Your task to perform on an android device: Search for razer deathadder on bestbuy, select the first entry, and add it to the cart. Image 0: 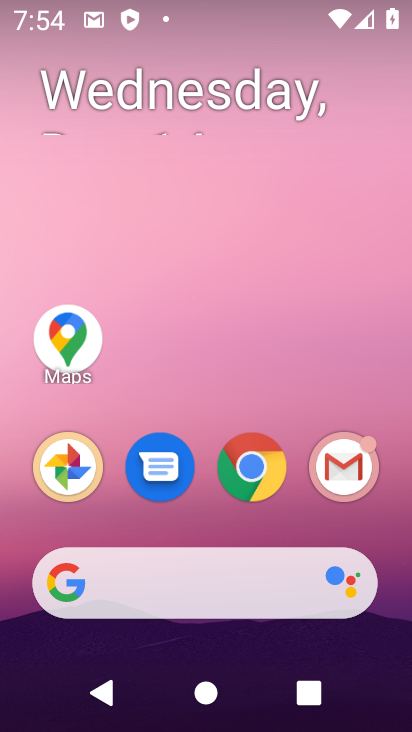
Step 0: click (283, 474)
Your task to perform on an android device: Search for razer deathadder on bestbuy, select the first entry, and add it to the cart. Image 1: 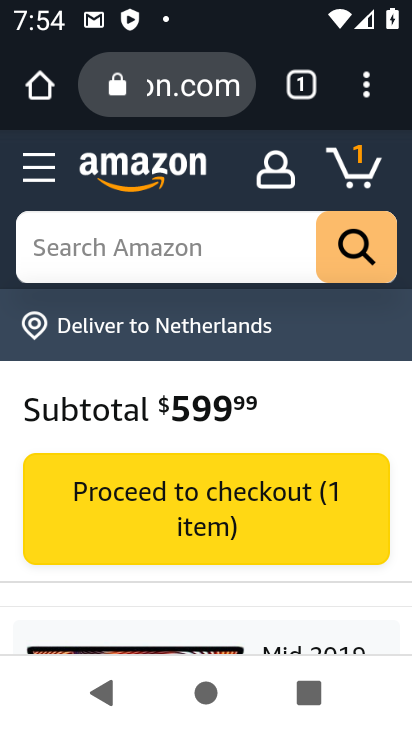
Step 1: click (178, 112)
Your task to perform on an android device: Search for razer deathadder on bestbuy, select the first entry, and add it to the cart. Image 2: 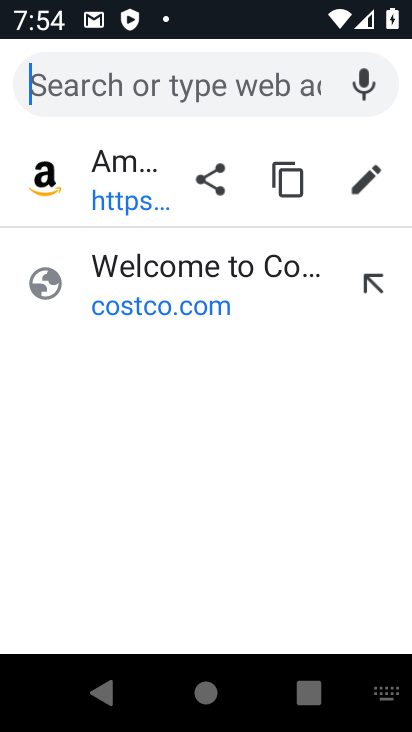
Step 2: type "bestbuy"
Your task to perform on an android device: Search for razer deathadder on bestbuy, select the first entry, and add it to the cart. Image 3: 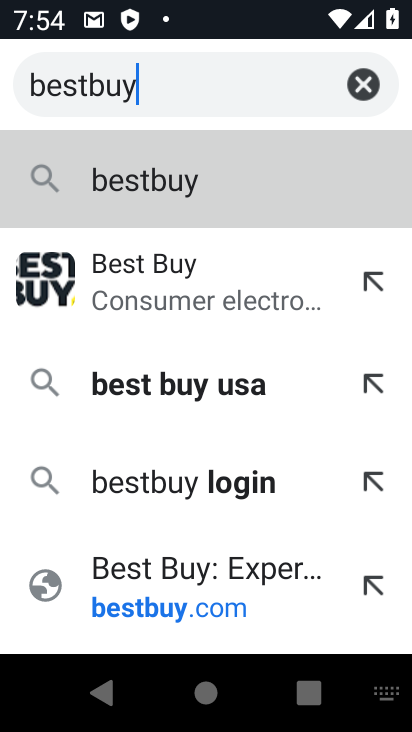
Step 3: click (177, 264)
Your task to perform on an android device: Search for razer deathadder on bestbuy, select the first entry, and add it to the cart. Image 4: 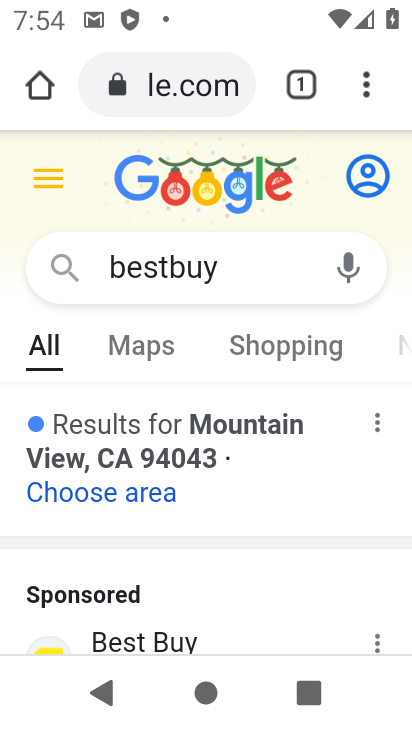
Step 4: click (126, 615)
Your task to perform on an android device: Search for razer deathadder on bestbuy, select the first entry, and add it to the cart. Image 5: 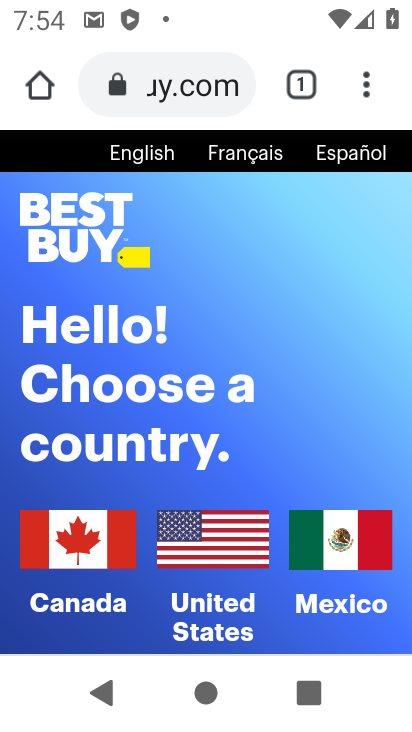
Step 5: click (127, 534)
Your task to perform on an android device: Search for razer deathadder on bestbuy, select the first entry, and add it to the cart. Image 6: 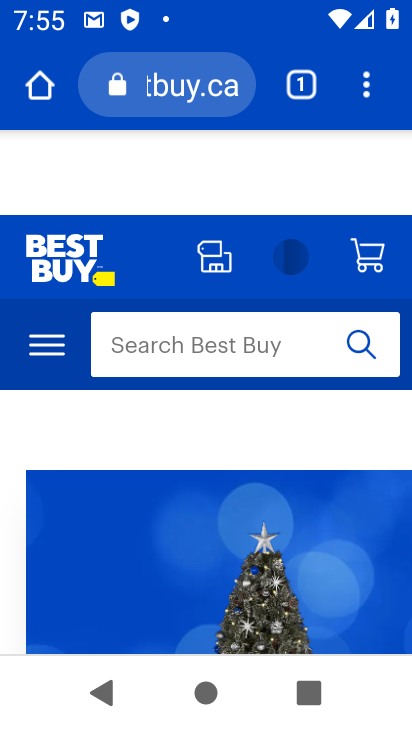
Step 6: click (154, 354)
Your task to perform on an android device: Search for razer deathadder on bestbuy, select the first entry, and add it to the cart. Image 7: 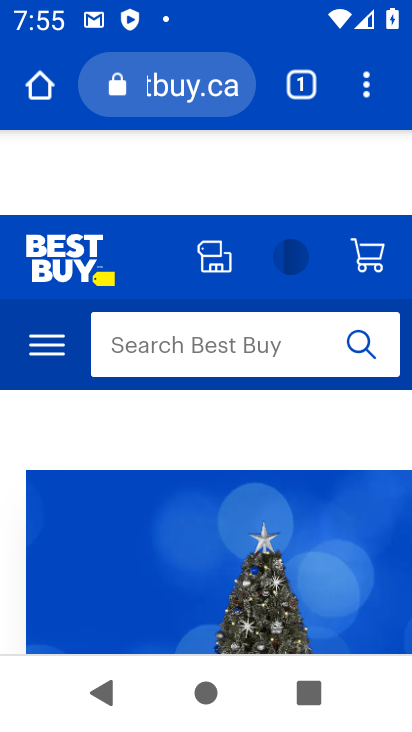
Step 7: type "razer deathadder"
Your task to perform on an android device: Search for razer deathadder on bestbuy, select the first entry, and add it to the cart. Image 8: 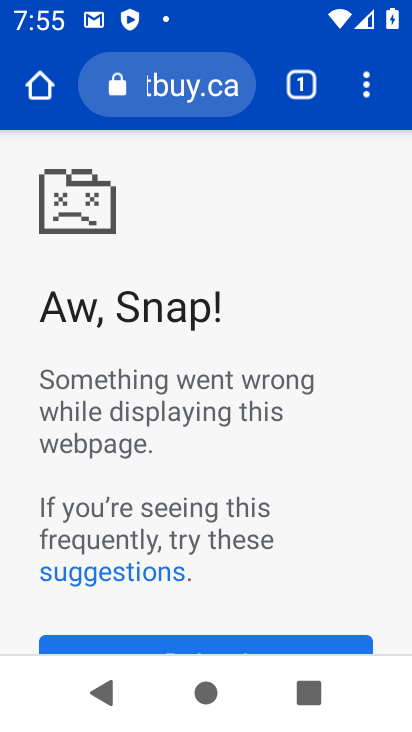
Step 8: click (204, 109)
Your task to perform on an android device: Search for razer deathadder on bestbuy, select the first entry, and add it to the cart. Image 9: 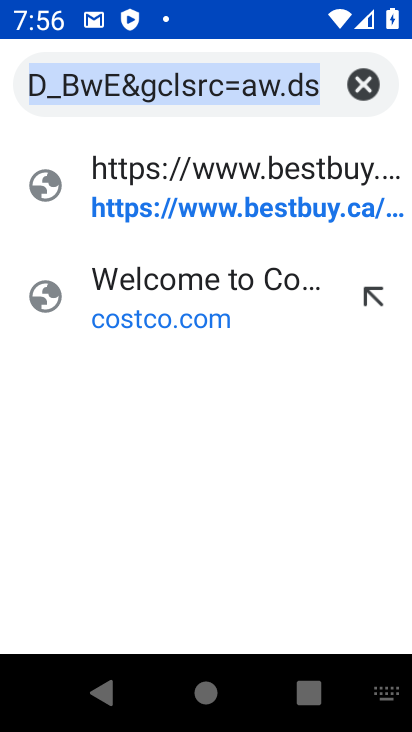
Step 9: press home button
Your task to perform on an android device: Search for razer deathadder on bestbuy, select the first entry, and add it to the cart. Image 10: 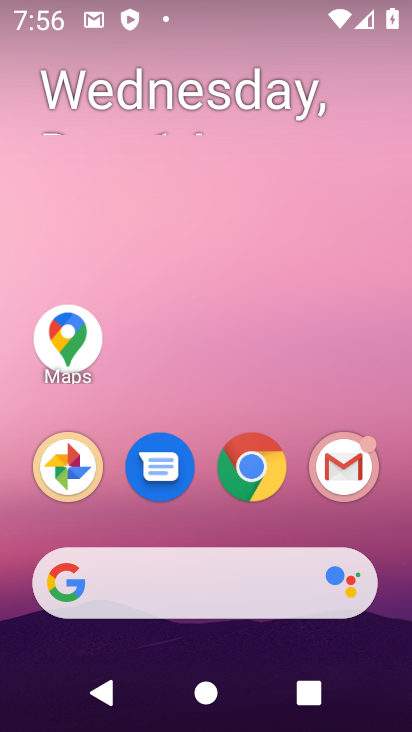
Step 10: click (271, 478)
Your task to perform on an android device: Search for razer deathadder on bestbuy, select the first entry, and add it to the cart. Image 11: 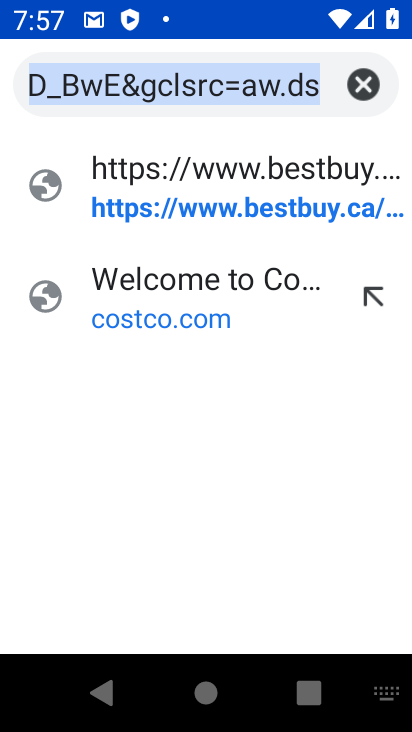
Step 11: click (297, 212)
Your task to perform on an android device: Search for razer deathadder on bestbuy, select the first entry, and add it to the cart. Image 12: 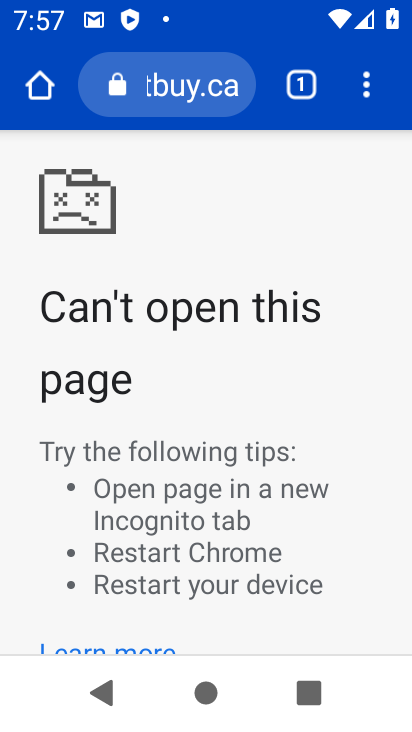
Step 12: click (233, 89)
Your task to perform on an android device: Search for razer deathadder on bestbuy, select the first entry, and add it to the cart. Image 13: 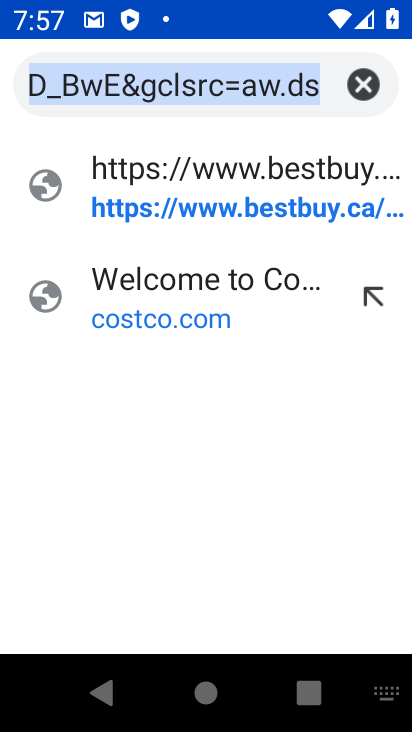
Step 13: click (178, 221)
Your task to perform on an android device: Search for razer deathadder on bestbuy, select the first entry, and add it to the cart. Image 14: 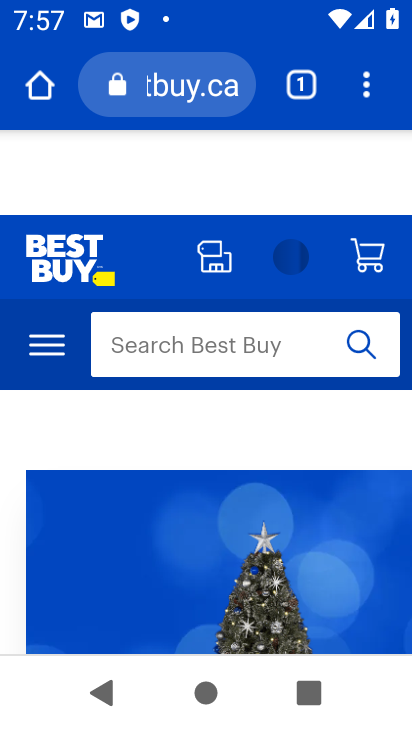
Step 14: click (166, 344)
Your task to perform on an android device: Search for razer deathadder on bestbuy, select the first entry, and add it to the cart. Image 15: 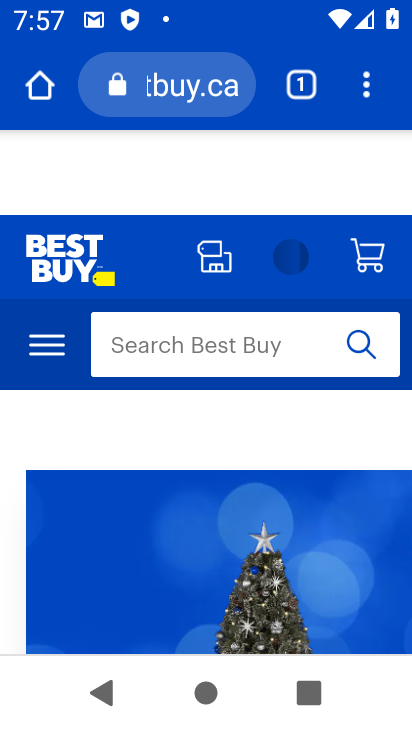
Step 15: type "razer deathadder"
Your task to perform on an android device: Search for razer deathadder on bestbuy, select the first entry, and add it to the cart. Image 16: 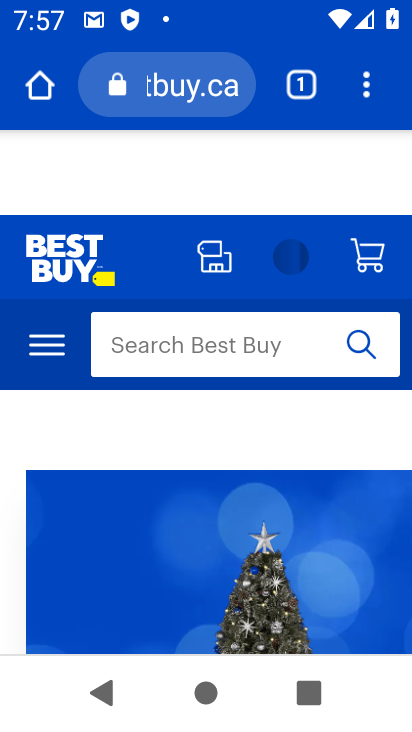
Step 16: click (253, 371)
Your task to perform on an android device: Search for razer deathadder on bestbuy, select the first entry, and add it to the cart. Image 17: 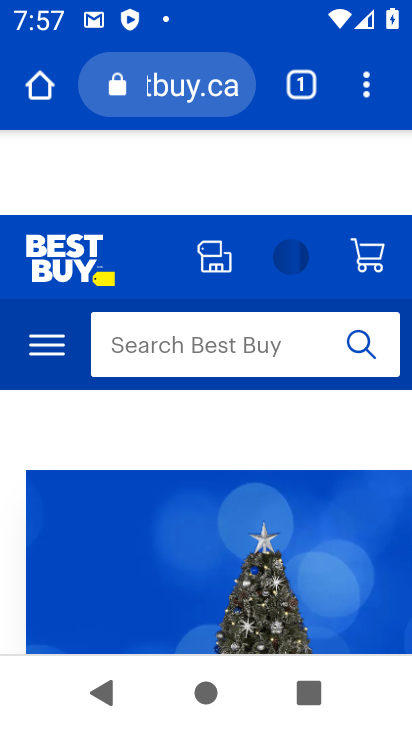
Step 17: click (253, 371)
Your task to perform on an android device: Search for razer deathadder on bestbuy, select the first entry, and add it to the cart. Image 18: 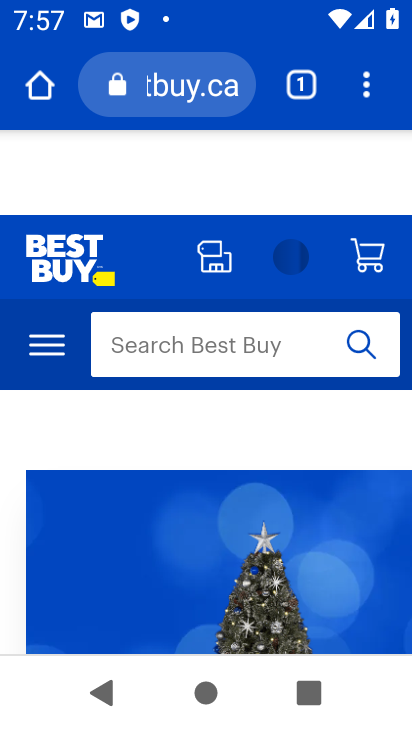
Step 18: click (253, 371)
Your task to perform on an android device: Search for razer deathadder on bestbuy, select the first entry, and add it to the cart. Image 19: 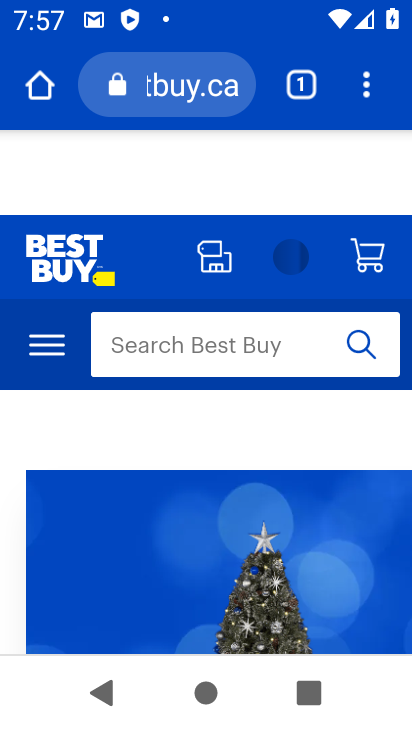
Step 19: task complete